Your task to perform on an android device: Open Google Maps Image 0: 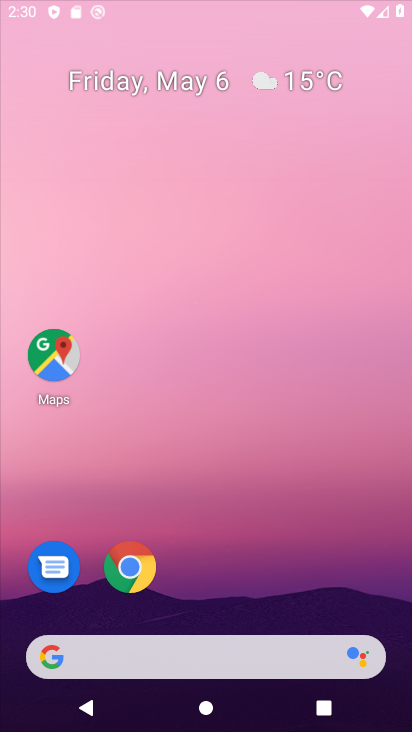
Step 0: drag from (210, 579) to (266, 165)
Your task to perform on an android device: Open Google Maps Image 1: 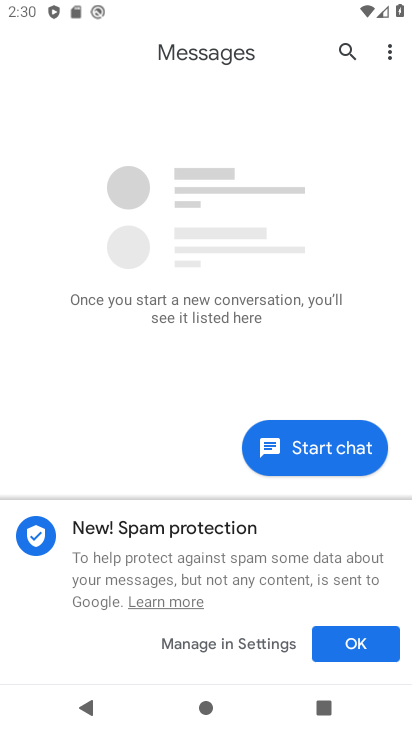
Step 1: press home button
Your task to perform on an android device: Open Google Maps Image 2: 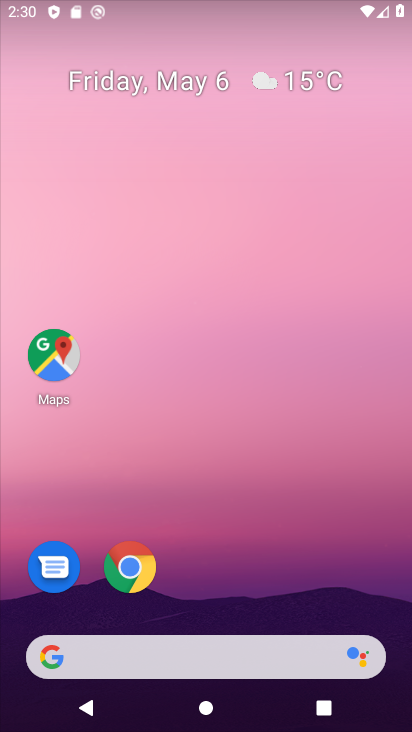
Step 2: click (59, 368)
Your task to perform on an android device: Open Google Maps Image 3: 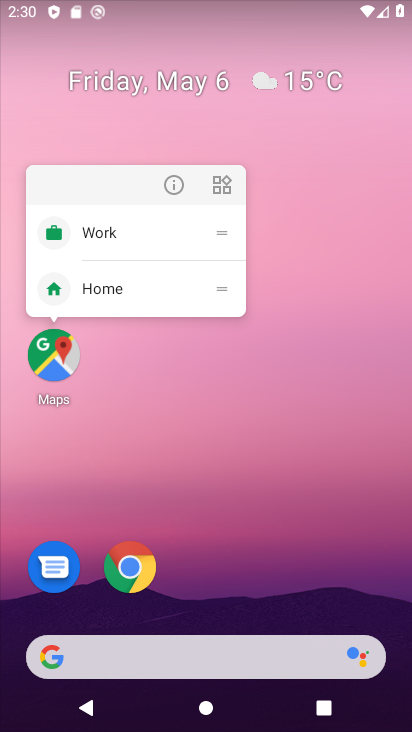
Step 3: click (59, 368)
Your task to perform on an android device: Open Google Maps Image 4: 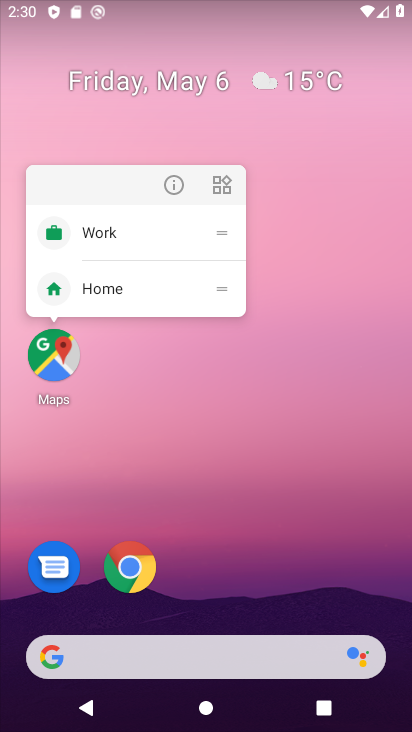
Step 4: click (57, 364)
Your task to perform on an android device: Open Google Maps Image 5: 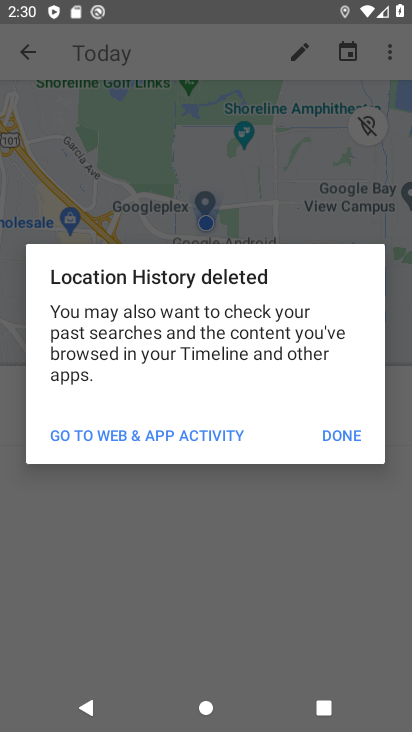
Step 5: click (344, 451)
Your task to perform on an android device: Open Google Maps Image 6: 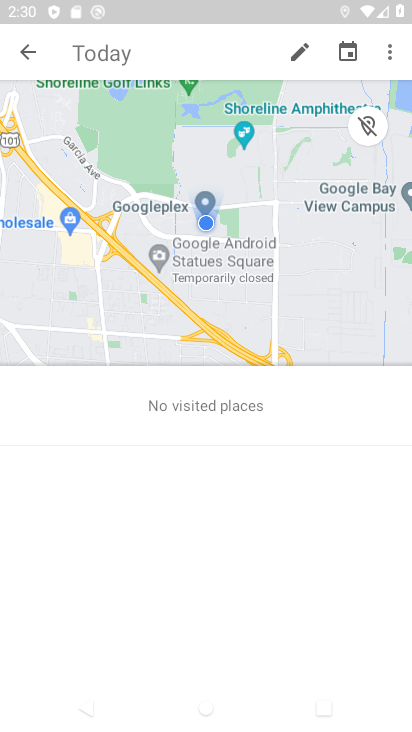
Step 6: click (30, 69)
Your task to perform on an android device: Open Google Maps Image 7: 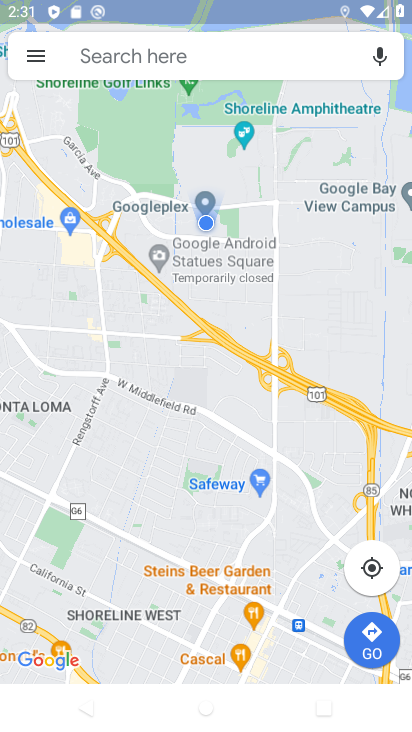
Step 7: task complete